Your task to perform on an android device: See recent photos Image 0: 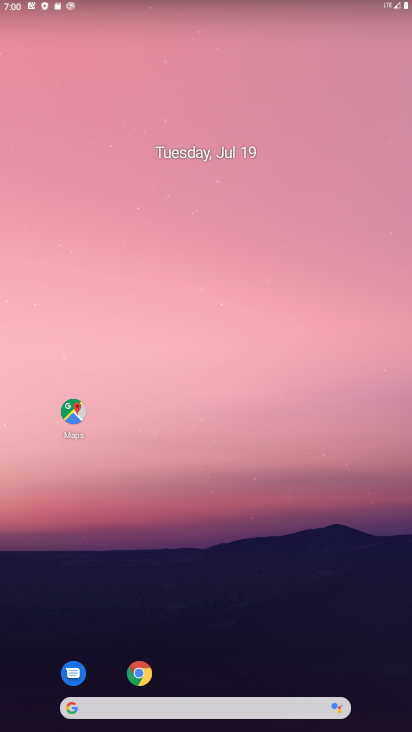
Step 0: drag from (342, 658) to (232, 22)
Your task to perform on an android device: See recent photos Image 1: 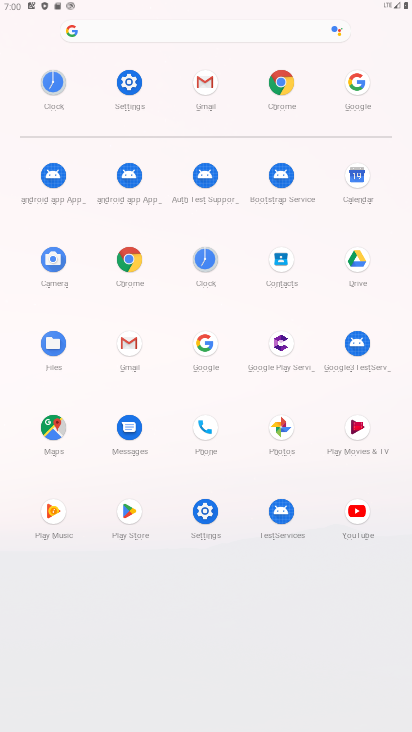
Step 1: click (292, 423)
Your task to perform on an android device: See recent photos Image 2: 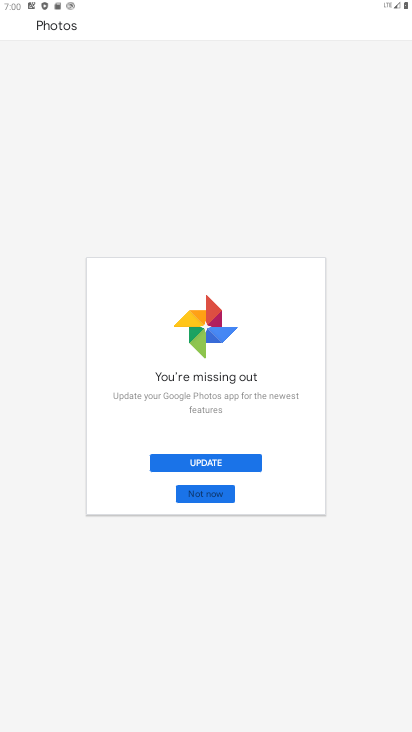
Step 2: click (188, 458)
Your task to perform on an android device: See recent photos Image 3: 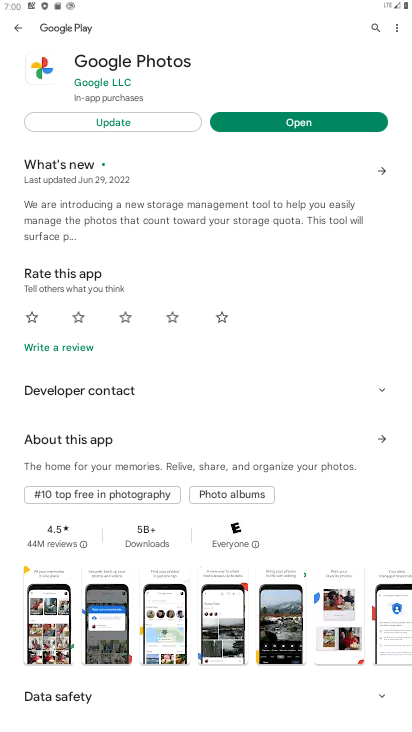
Step 3: click (116, 121)
Your task to perform on an android device: See recent photos Image 4: 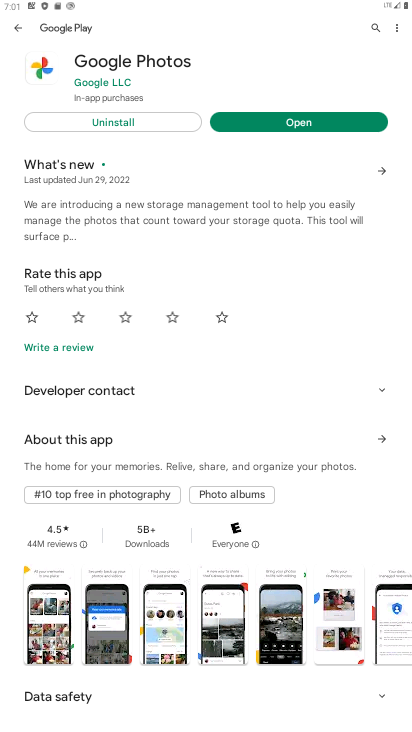
Step 4: click (293, 125)
Your task to perform on an android device: See recent photos Image 5: 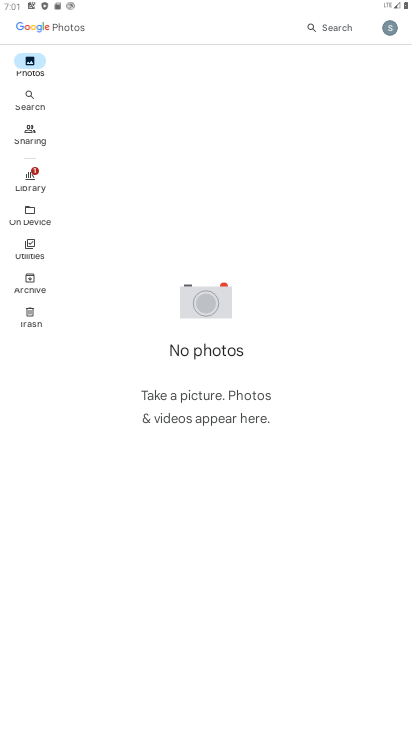
Step 5: task complete